Your task to perform on an android device: Search for "usb-c to usb-a" on costco, select the first entry, add it to the cart, then select checkout. Image 0: 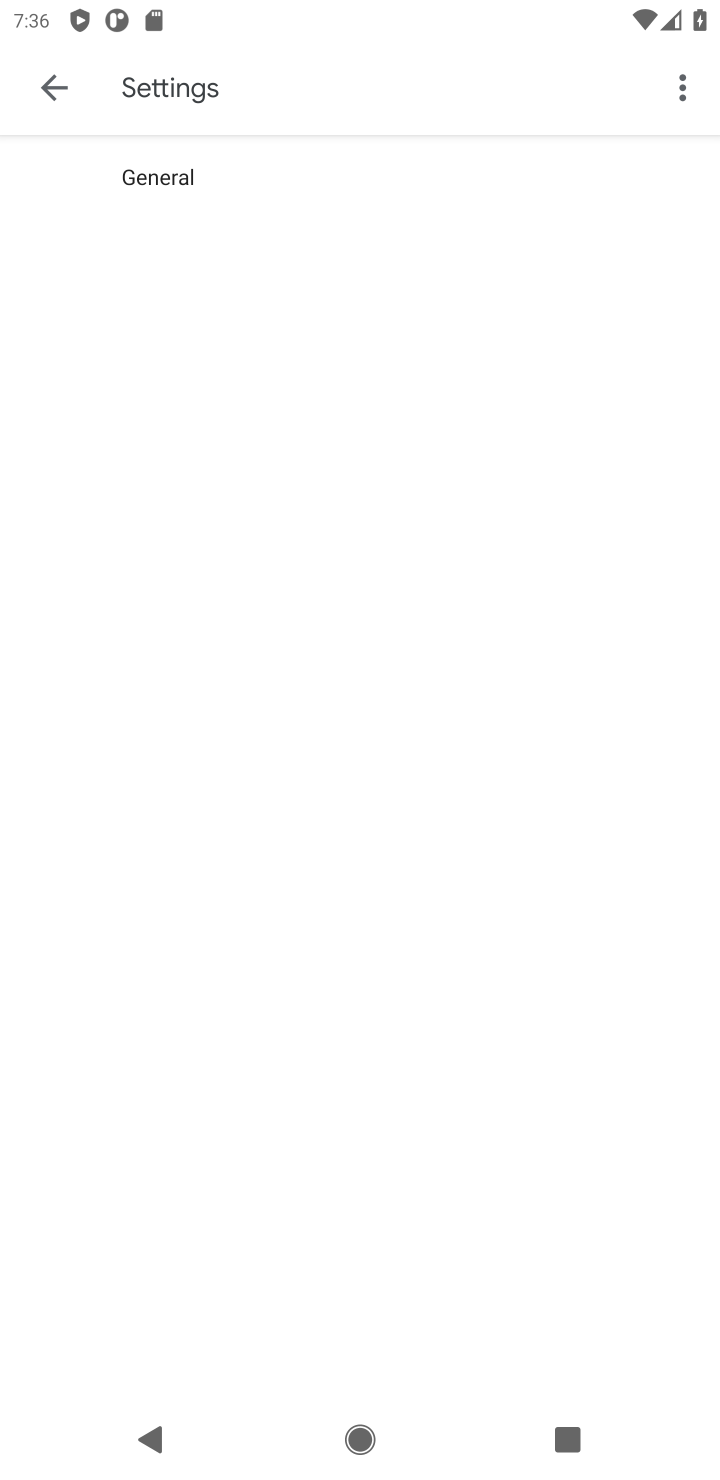
Step 0: press home button
Your task to perform on an android device: Search for "usb-c to usb-a" on costco, select the first entry, add it to the cart, then select checkout. Image 1: 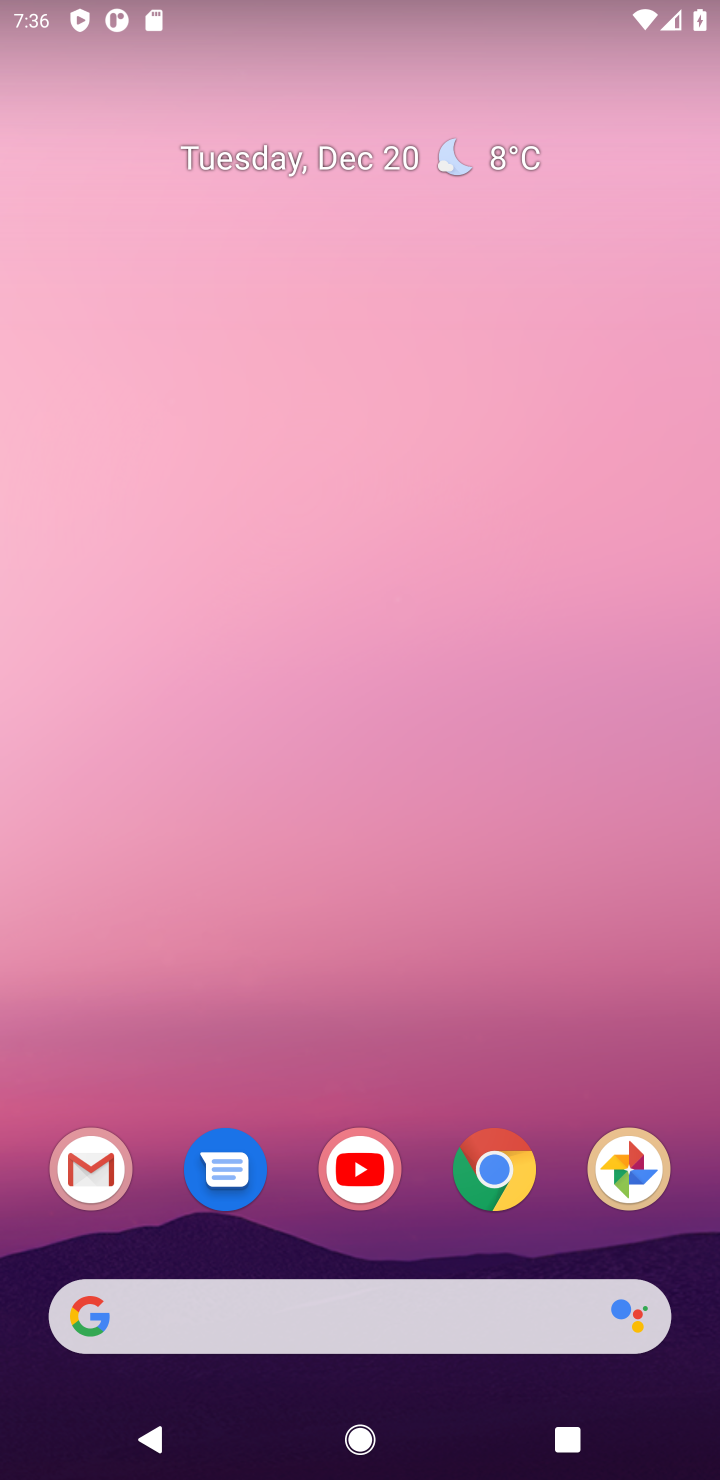
Step 1: click (504, 1201)
Your task to perform on an android device: Search for "usb-c to usb-a" on costco, select the first entry, add it to the cart, then select checkout. Image 2: 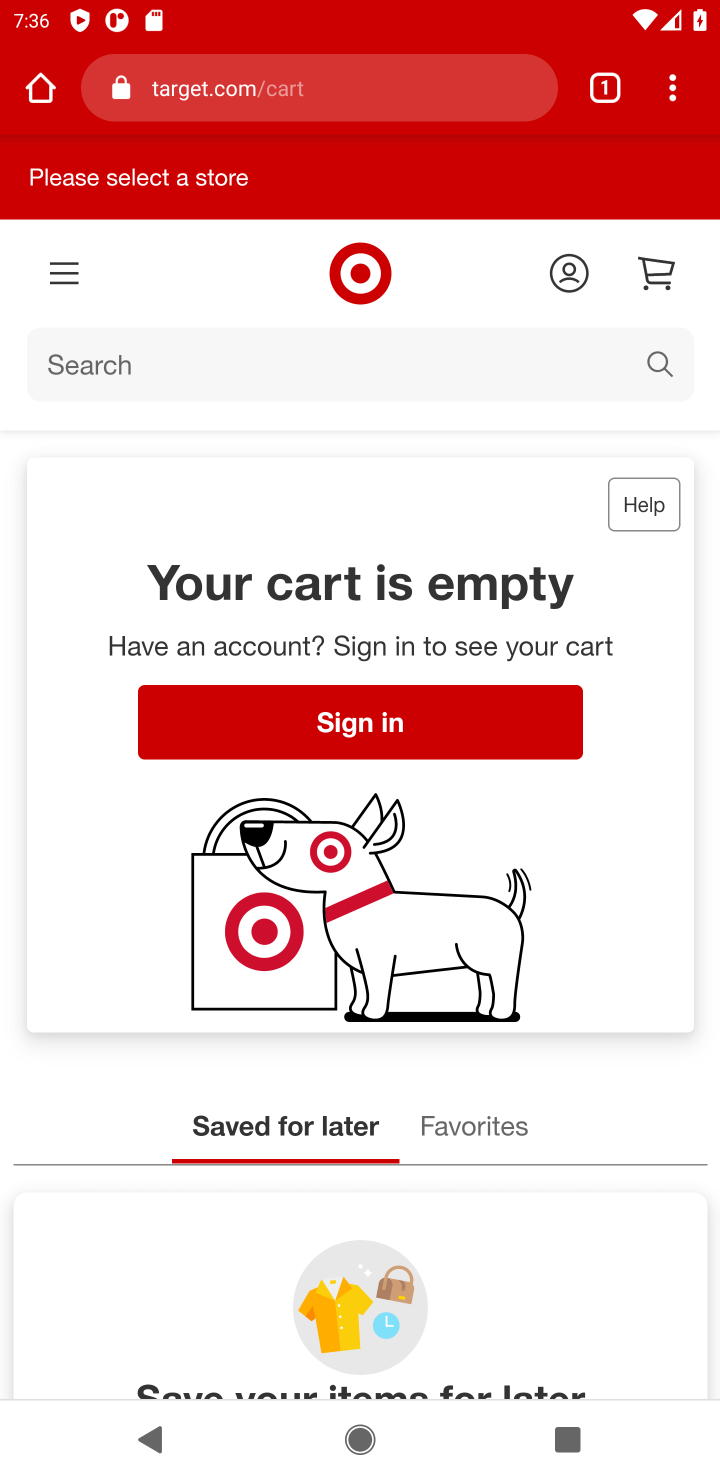
Step 2: click (432, 113)
Your task to perform on an android device: Search for "usb-c to usb-a" on costco, select the first entry, add it to the cart, then select checkout. Image 3: 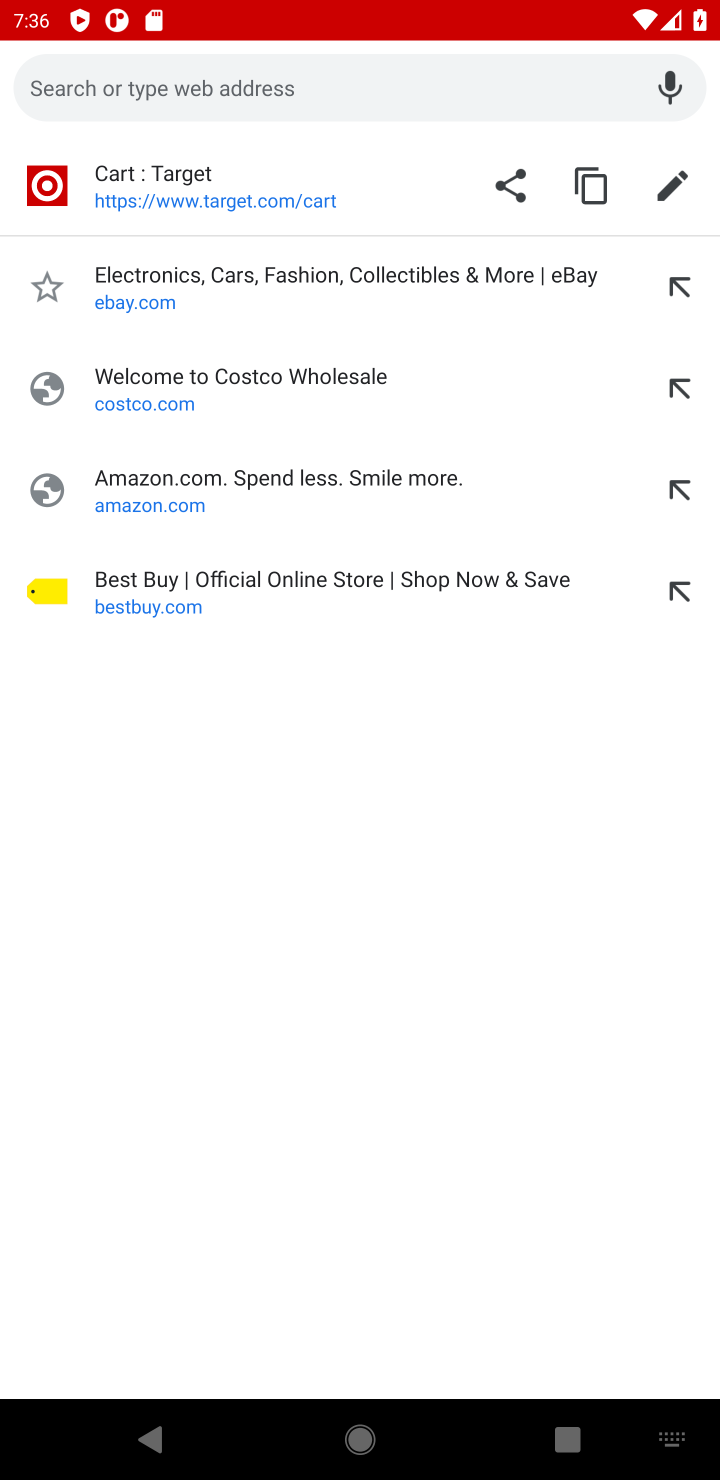
Step 3: type "costco"
Your task to perform on an android device: Search for "usb-c to usb-a" on costco, select the first entry, add it to the cart, then select checkout. Image 4: 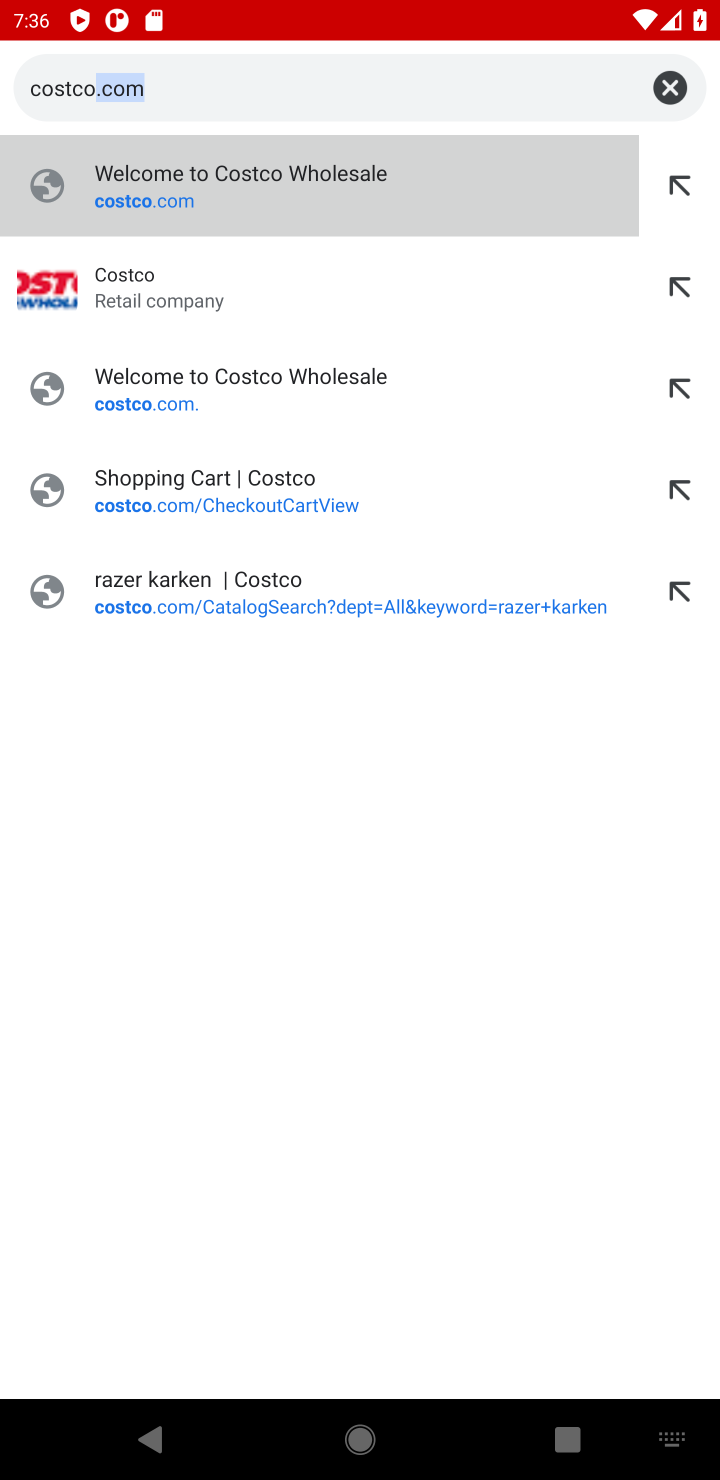
Step 4: click (174, 168)
Your task to perform on an android device: Search for "usb-c to usb-a" on costco, select the first entry, add it to the cart, then select checkout. Image 5: 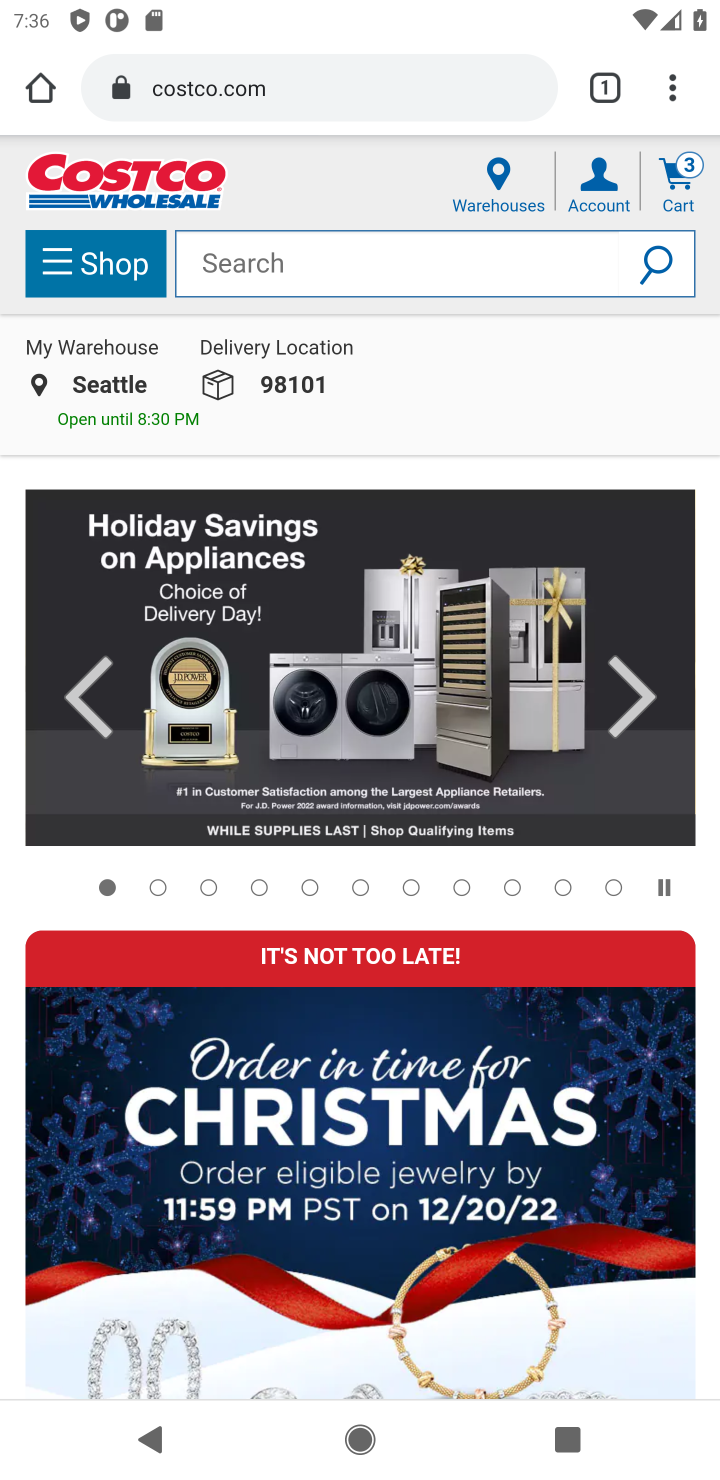
Step 5: click (271, 257)
Your task to perform on an android device: Search for "usb-c to usb-a" on costco, select the first entry, add it to the cart, then select checkout. Image 6: 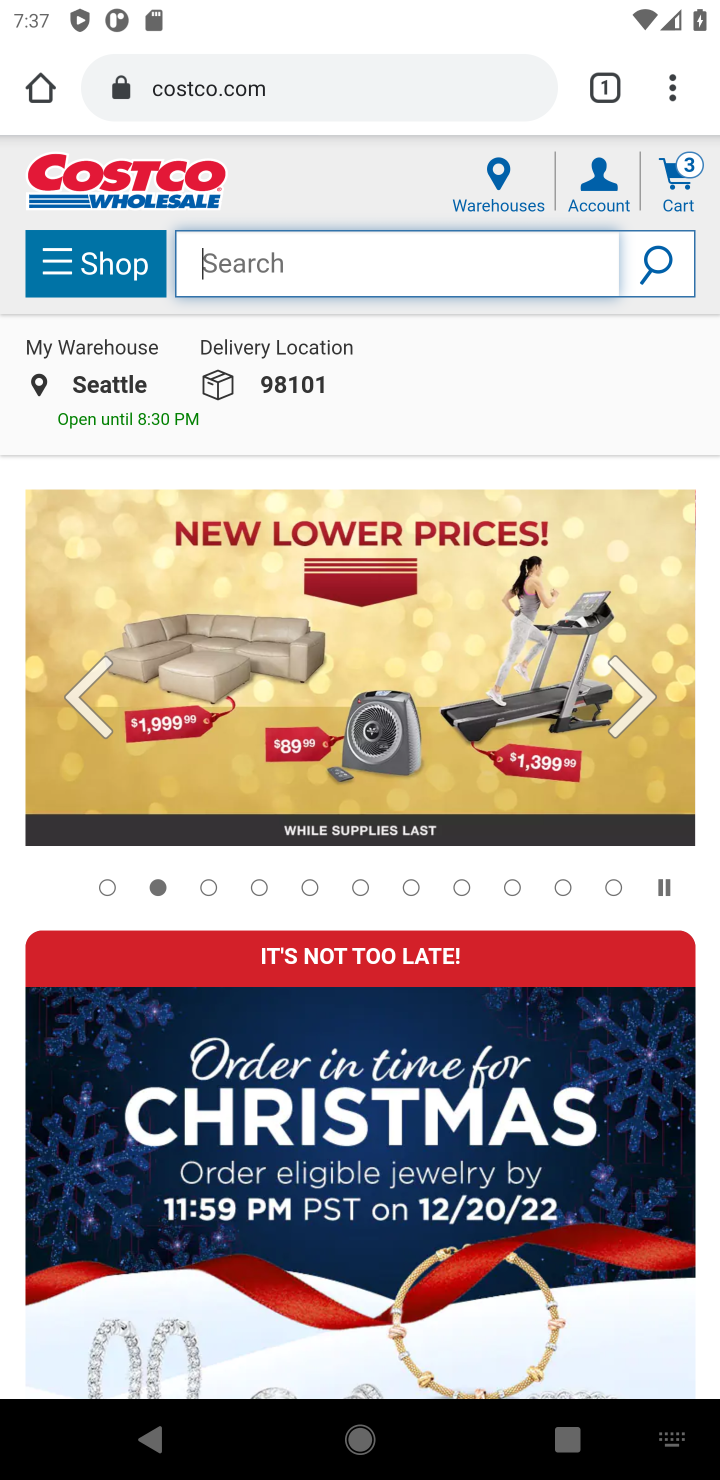
Step 6: type "usb-c to usb-a"
Your task to perform on an android device: Search for "usb-c to usb-a" on costco, select the first entry, add it to the cart, then select checkout. Image 7: 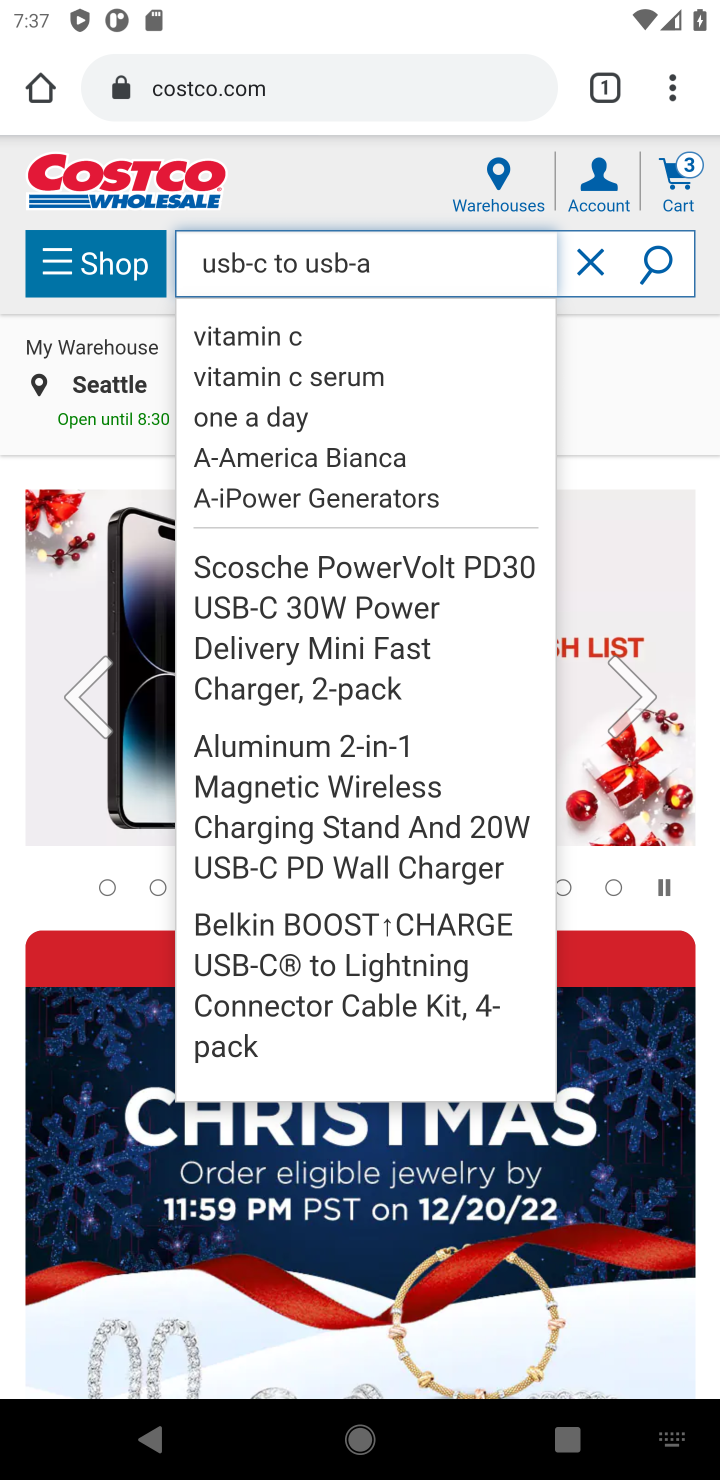
Step 7: click (649, 263)
Your task to perform on an android device: Search for "usb-c to usb-a" on costco, select the first entry, add it to the cart, then select checkout. Image 8: 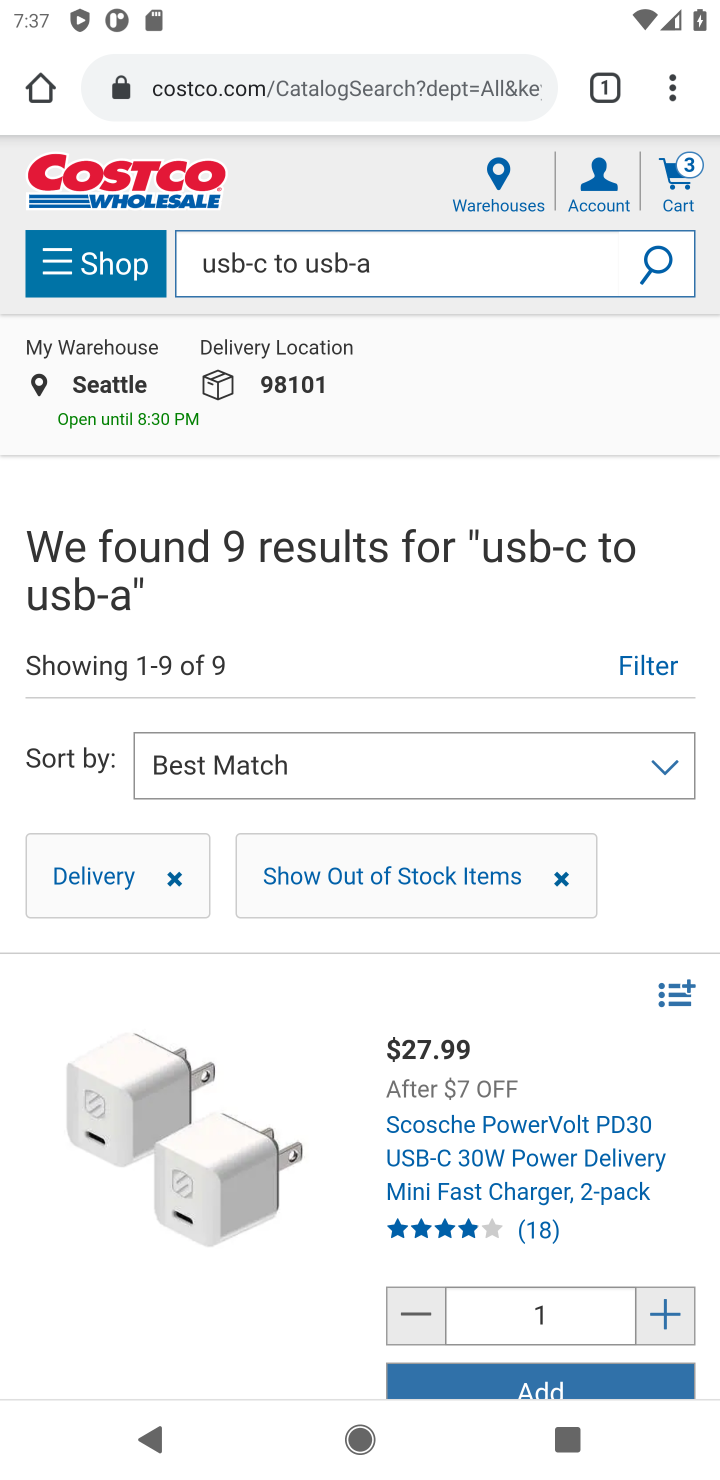
Step 8: click (544, 1381)
Your task to perform on an android device: Search for "usb-c to usb-a" on costco, select the first entry, add it to the cart, then select checkout. Image 9: 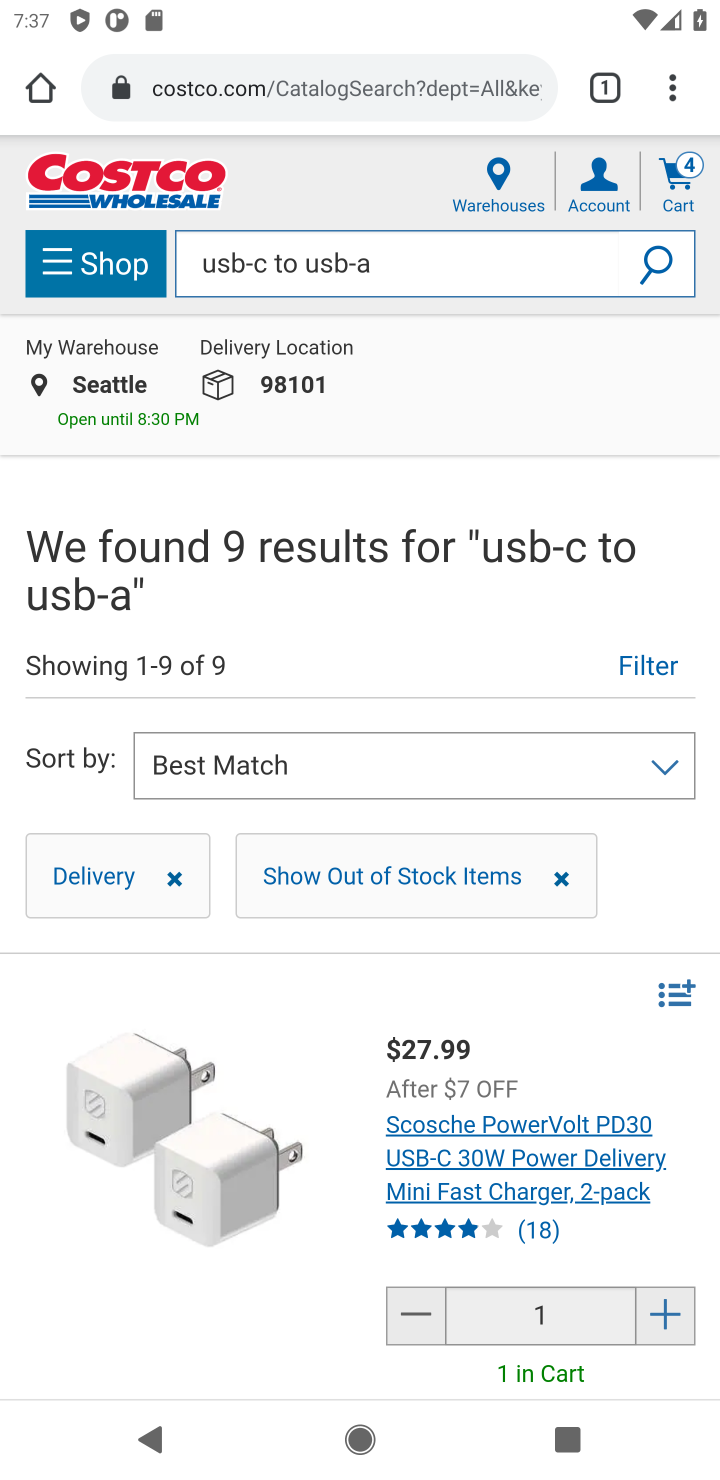
Step 9: task complete